Your task to perform on an android device: Find coffee shops on Maps Image 0: 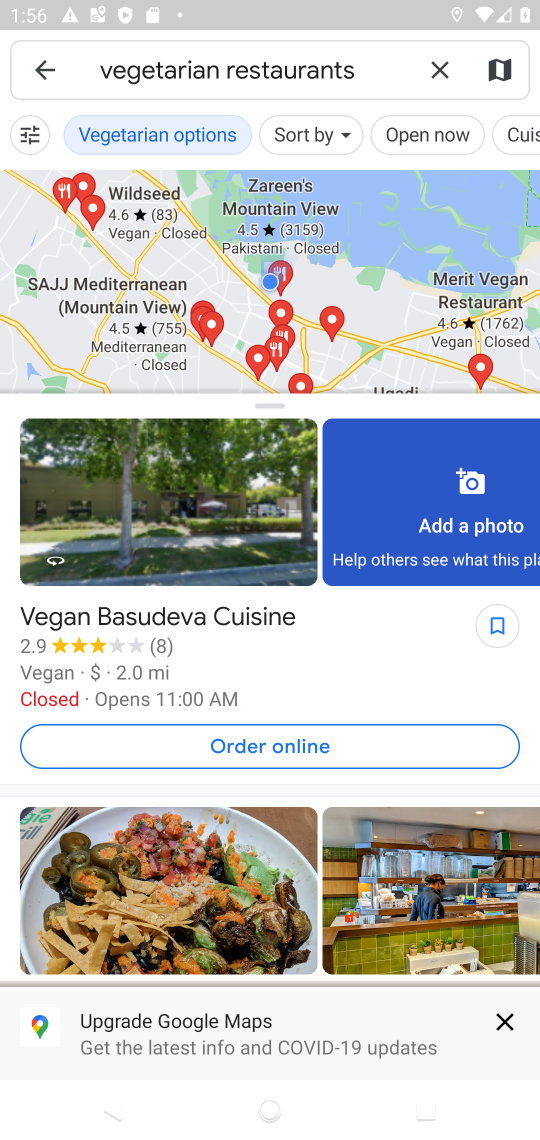
Step 0: click (440, 70)
Your task to perform on an android device: Find coffee shops on Maps Image 1: 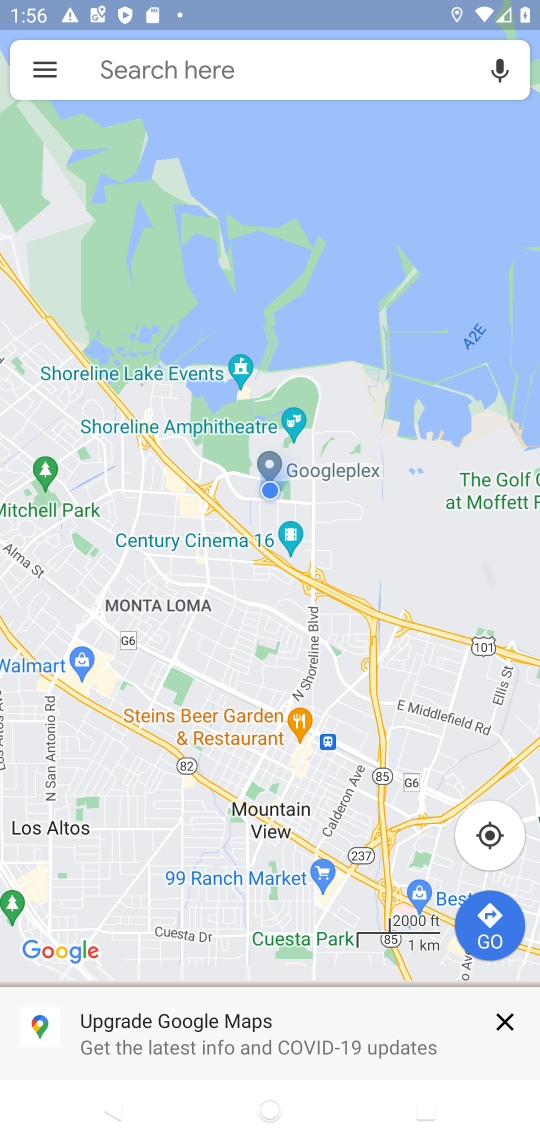
Step 1: click (278, 74)
Your task to perform on an android device: Find coffee shops on Maps Image 2: 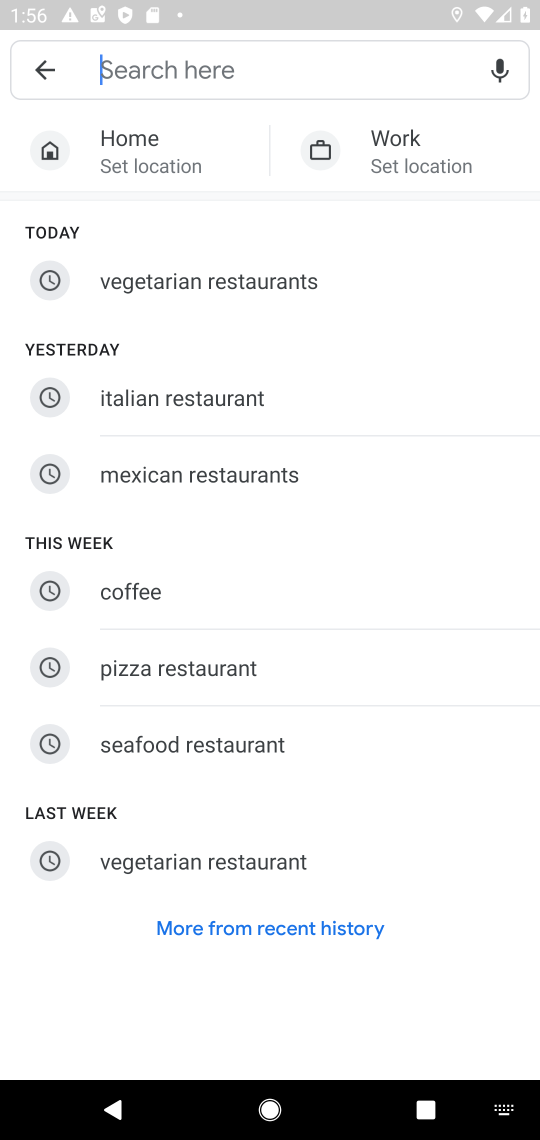
Step 2: click (147, 586)
Your task to perform on an android device: Find coffee shops on Maps Image 3: 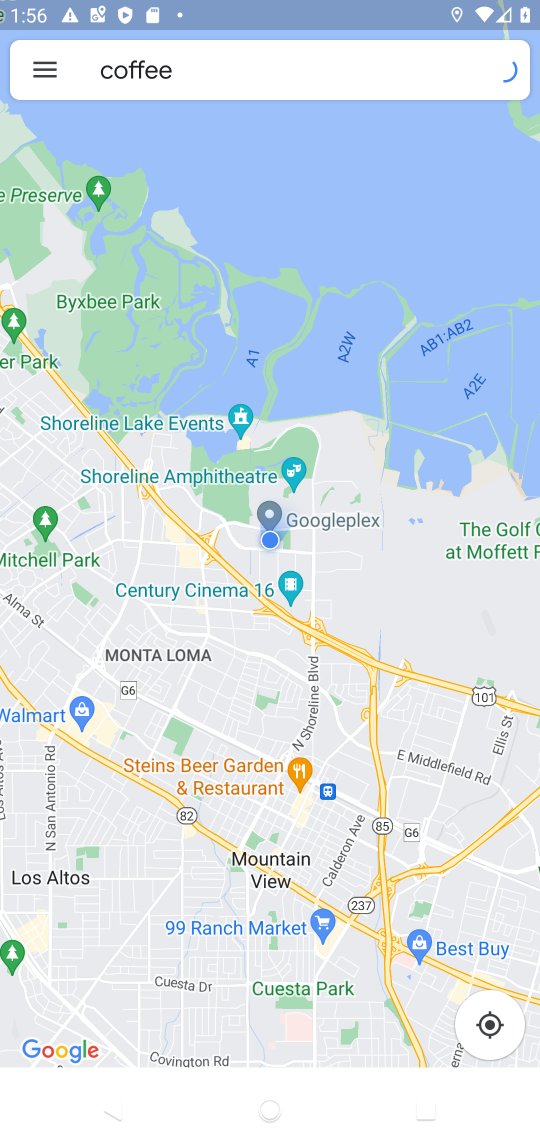
Step 3: click (147, 586)
Your task to perform on an android device: Find coffee shops on Maps Image 4: 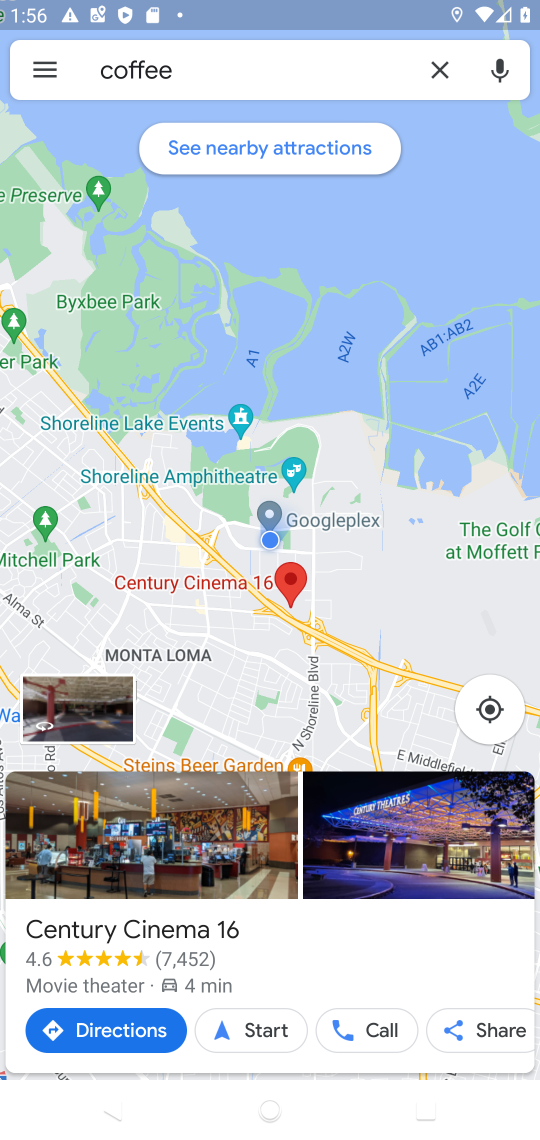
Step 4: task complete